Your task to perform on an android device: toggle translation in the chrome app Image 0: 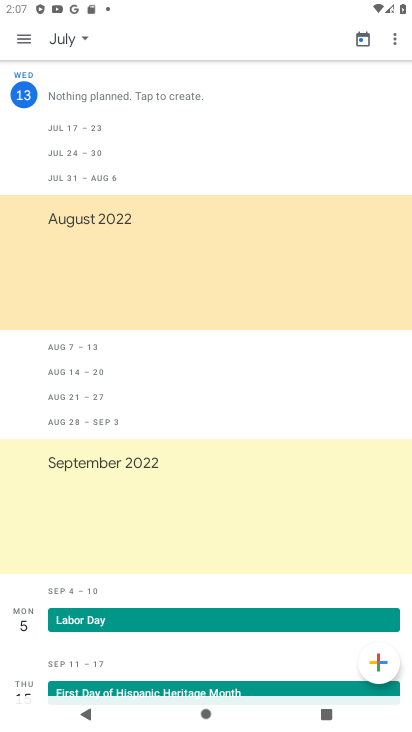
Step 0: press home button
Your task to perform on an android device: toggle translation in the chrome app Image 1: 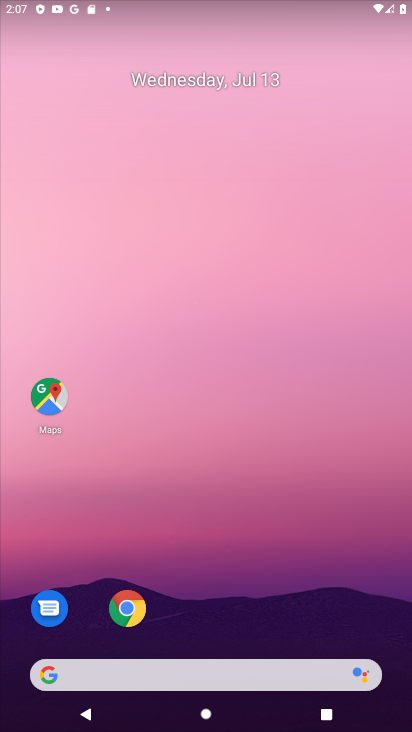
Step 1: click (122, 612)
Your task to perform on an android device: toggle translation in the chrome app Image 2: 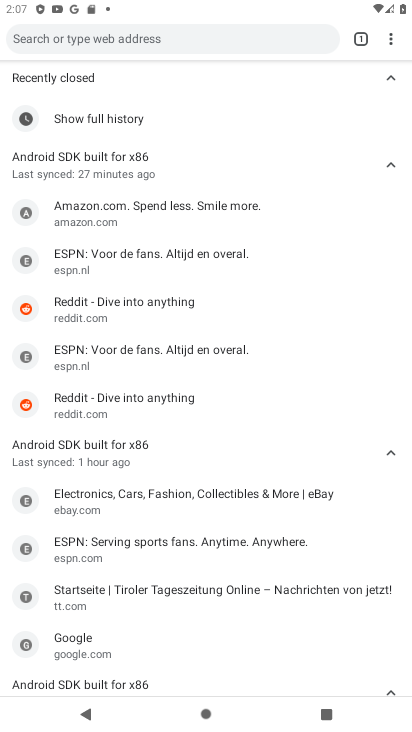
Step 2: click (396, 32)
Your task to perform on an android device: toggle translation in the chrome app Image 3: 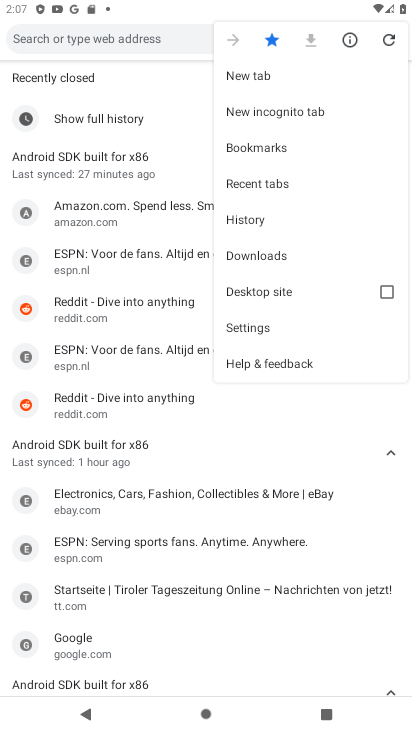
Step 3: click (265, 316)
Your task to perform on an android device: toggle translation in the chrome app Image 4: 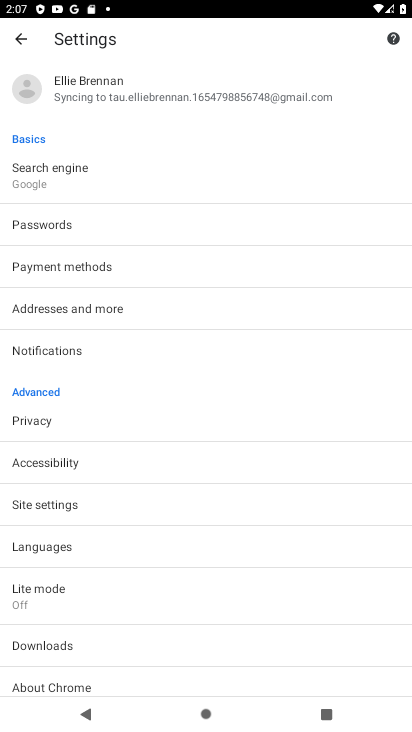
Step 4: click (129, 558)
Your task to perform on an android device: toggle translation in the chrome app Image 5: 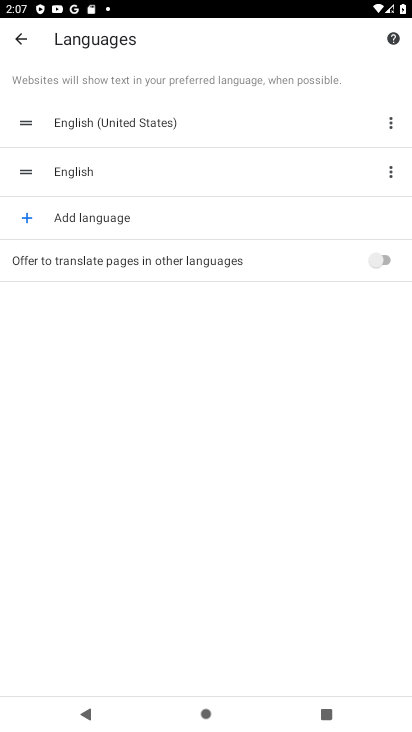
Step 5: click (387, 257)
Your task to perform on an android device: toggle translation in the chrome app Image 6: 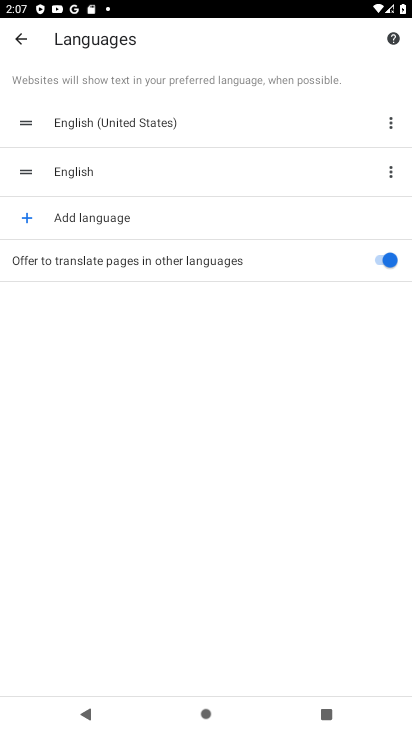
Step 6: click (387, 257)
Your task to perform on an android device: toggle translation in the chrome app Image 7: 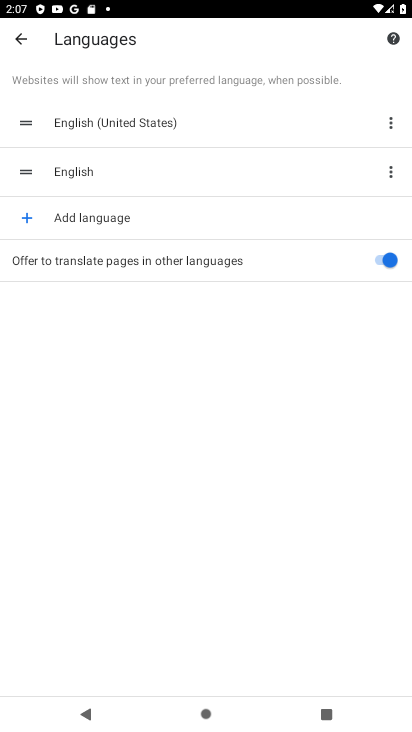
Step 7: click (387, 257)
Your task to perform on an android device: toggle translation in the chrome app Image 8: 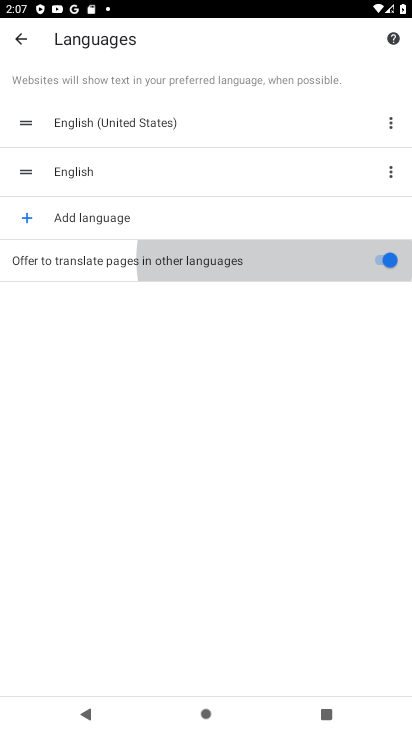
Step 8: click (387, 257)
Your task to perform on an android device: toggle translation in the chrome app Image 9: 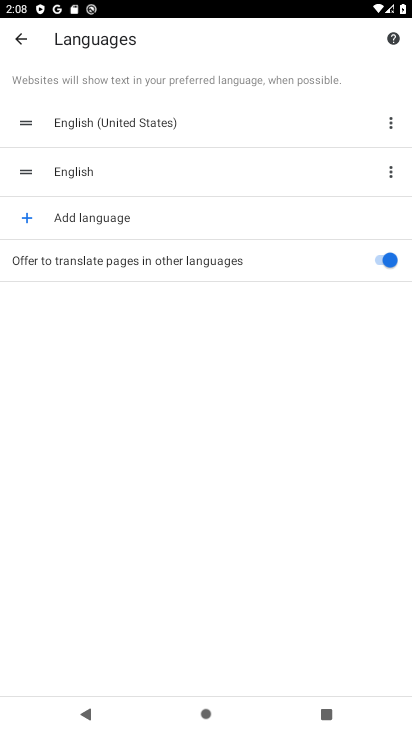
Step 9: task complete